Your task to perform on an android device: check google app version Image 0: 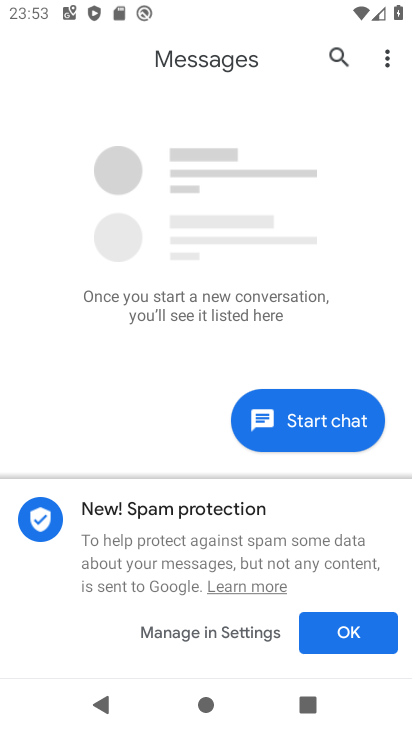
Step 0: press home button
Your task to perform on an android device: check google app version Image 1: 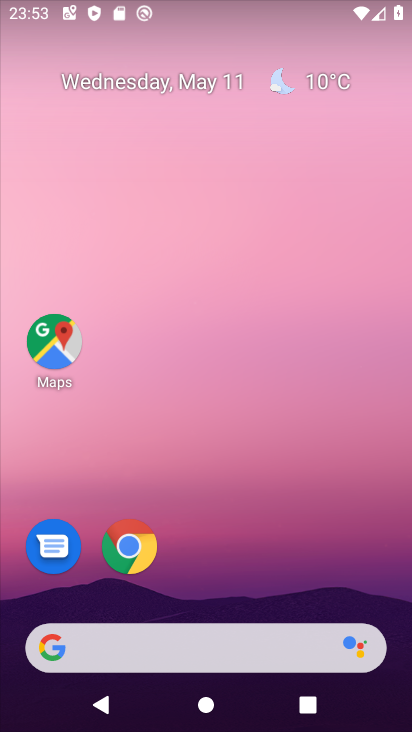
Step 1: drag from (123, 599) to (135, 243)
Your task to perform on an android device: check google app version Image 2: 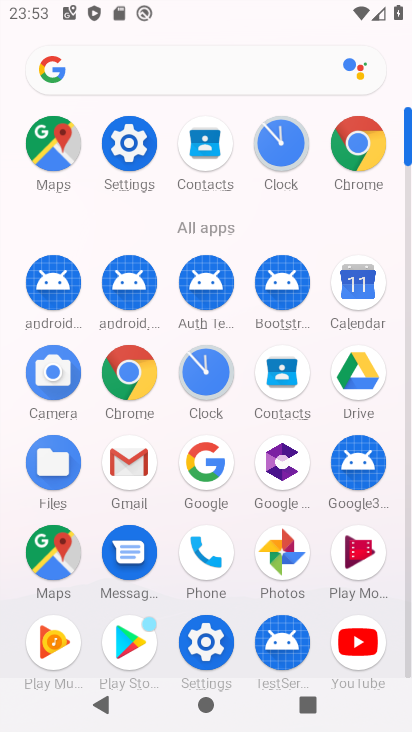
Step 2: click (204, 463)
Your task to perform on an android device: check google app version Image 3: 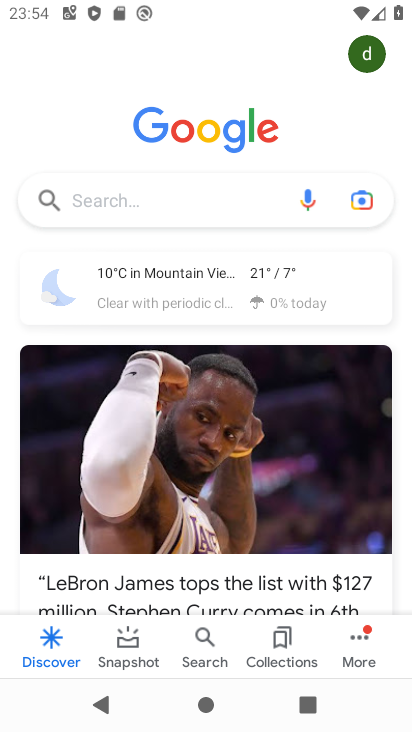
Step 3: click (356, 652)
Your task to perform on an android device: check google app version Image 4: 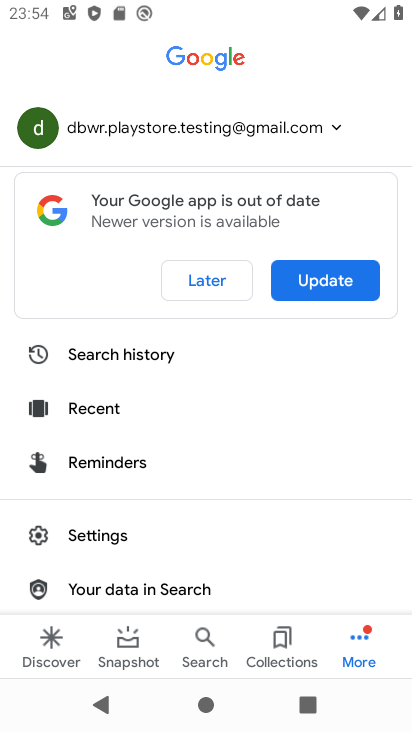
Step 4: click (115, 540)
Your task to perform on an android device: check google app version Image 5: 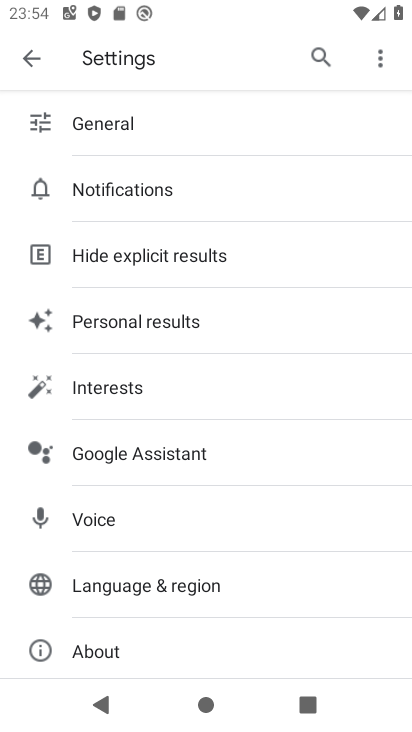
Step 5: drag from (130, 621) to (163, 365)
Your task to perform on an android device: check google app version Image 6: 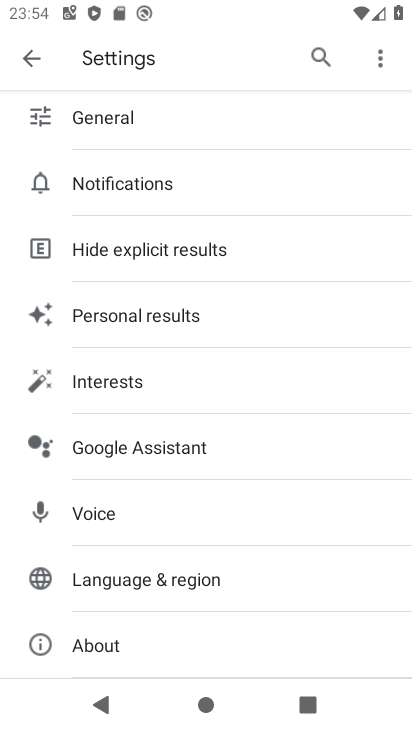
Step 6: click (93, 649)
Your task to perform on an android device: check google app version Image 7: 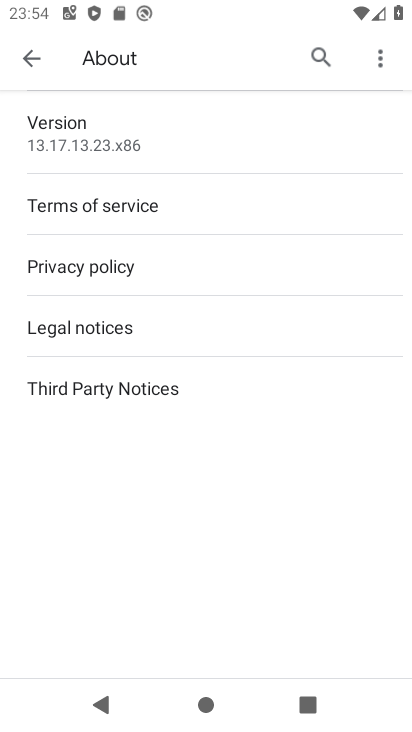
Step 7: click (105, 150)
Your task to perform on an android device: check google app version Image 8: 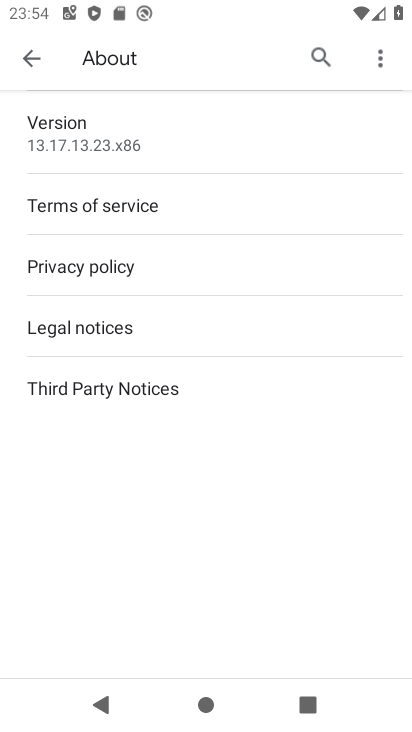
Step 8: task complete